Your task to perform on an android device: Open eBay Image 0: 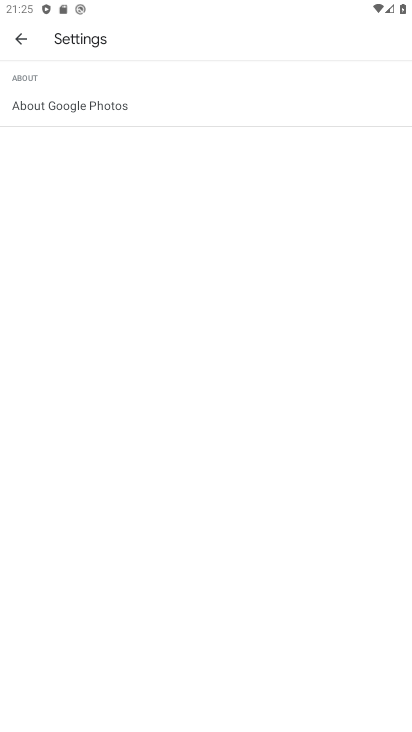
Step 0: press home button
Your task to perform on an android device: Open eBay Image 1: 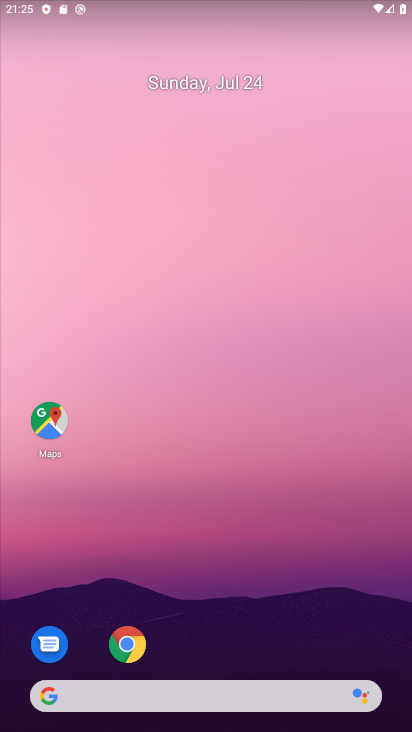
Step 1: click (127, 649)
Your task to perform on an android device: Open eBay Image 2: 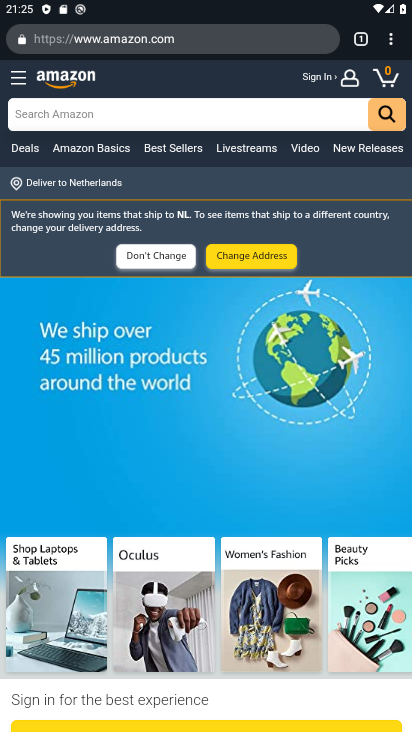
Step 2: click (208, 36)
Your task to perform on an android device: Open eBay Image 3: 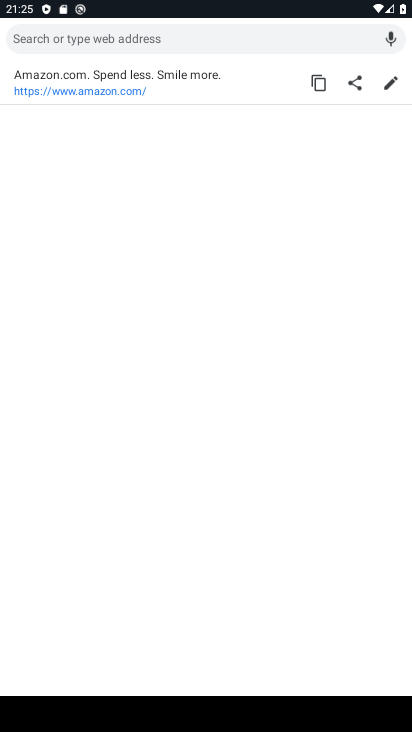
Step 3: type "eBay"
Your task to perform on an android device: Open eBay Image 4: 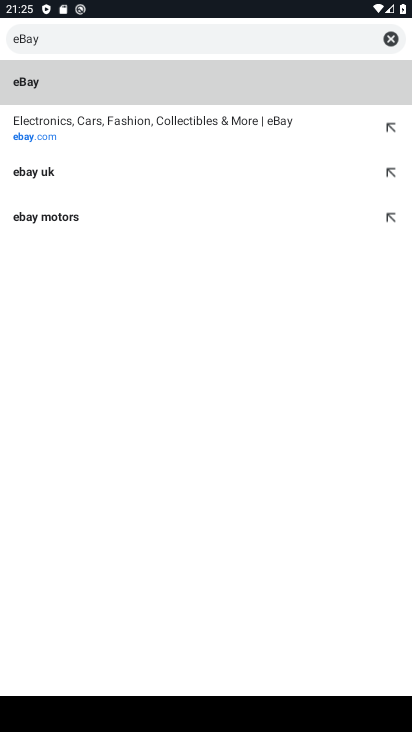
Step 4: click (42, 81)
Your task to perform on an android device: Open eBay Image 5: 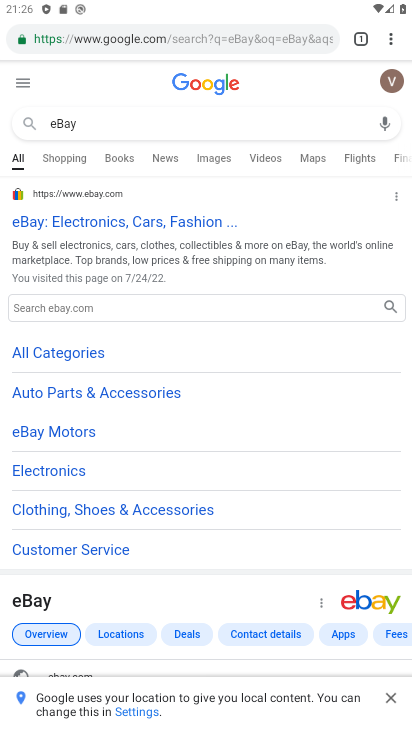
Step 5: click (65, 223)
Your task to perform on an android device: Open eBay Image 6: 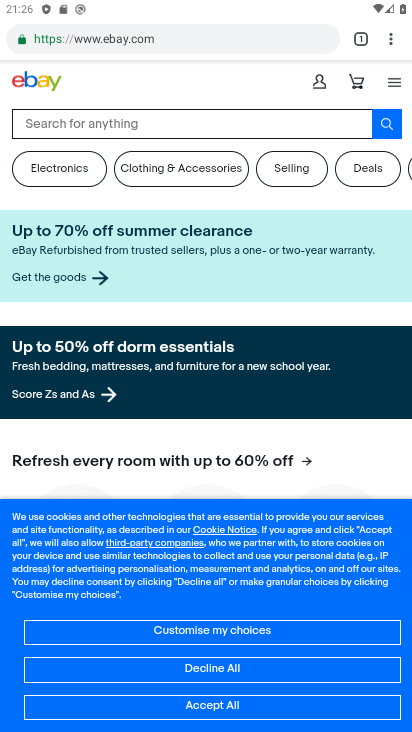
Step 6: task complete